Your task to perform on an android device: Go to Android settings Image 0: 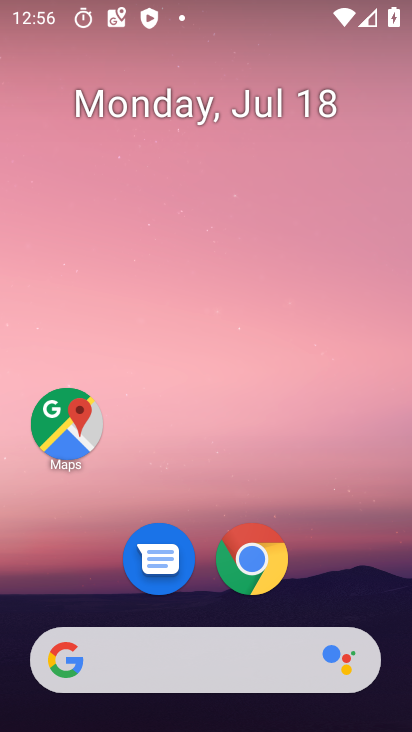
Step 0: drag from (180, 503) to (178, 0)
Your task to perform on an android device: Go to Android settings Image 1: 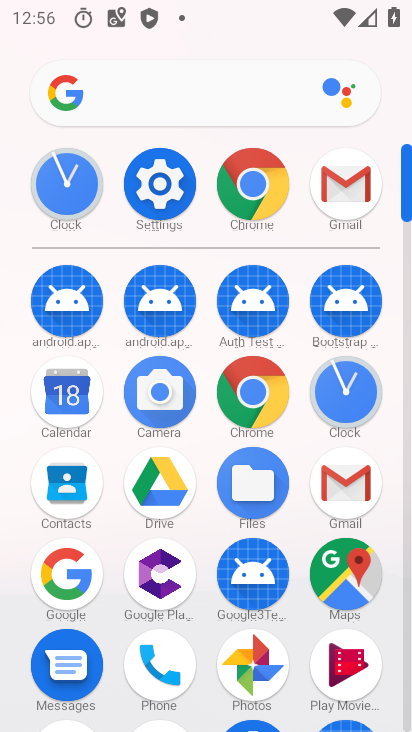
Step 1: click (161, 188)
Your task to perform on an android device: Go to Android settings Image 2: 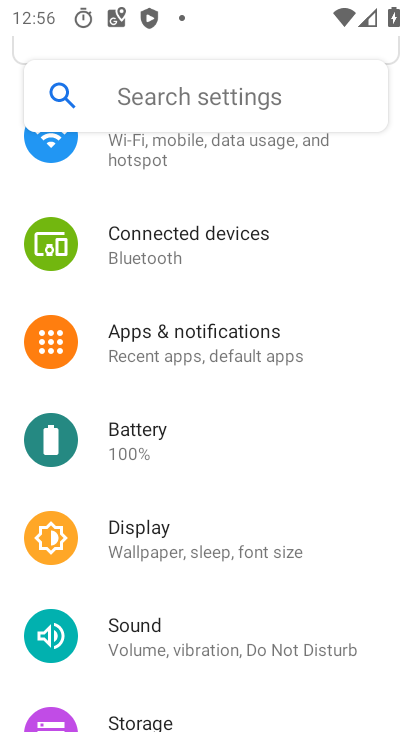
Step 2: drag from (182, 666) to (190, 22)
Your task to perform on an android device: Go to Android settings Image 3: 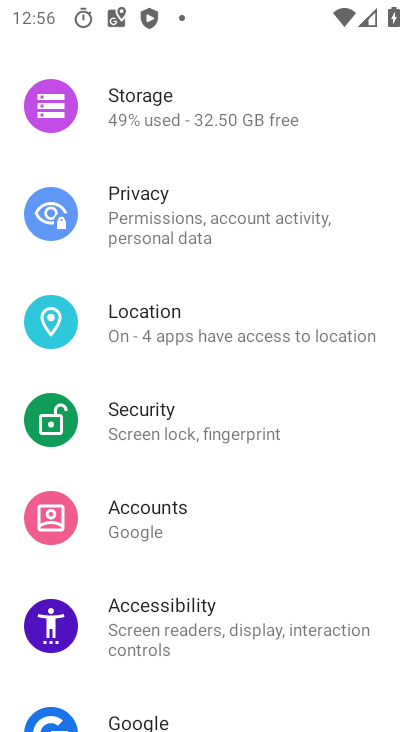
Step 3: drag from (166, 680) to (234, 2)
Your task to perform on an android device: Go to Android settings Image 4: 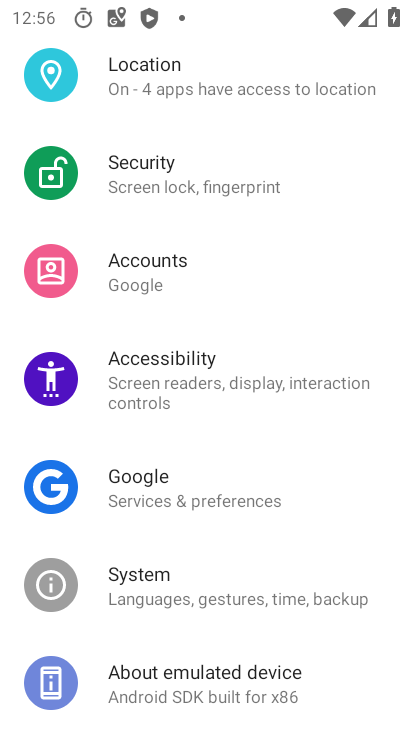
Step 4: click (237, 667)
Your task to perform on an android device: Go to Android settings Image 5: 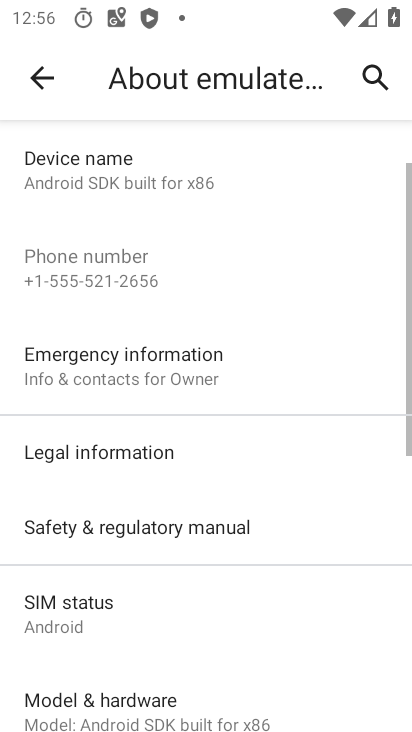
Step 5: drag from (146, 654) to (274, 19)
Your task to perform on an android device: Go to Android settings Image 6: 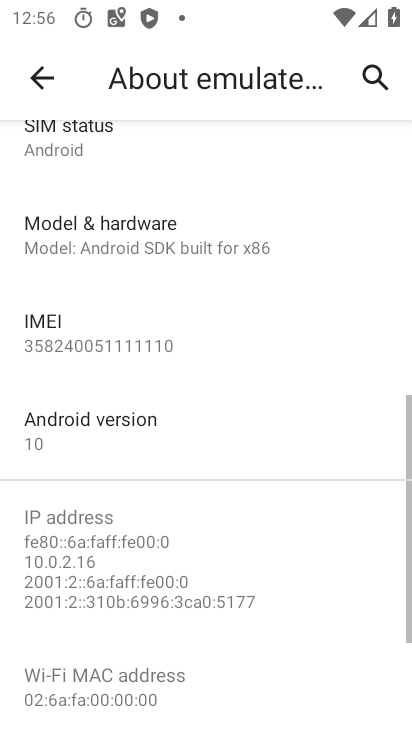
Step 6: click (107, 432)
Your task to perform on an android device: Go to Android settings Image 7: 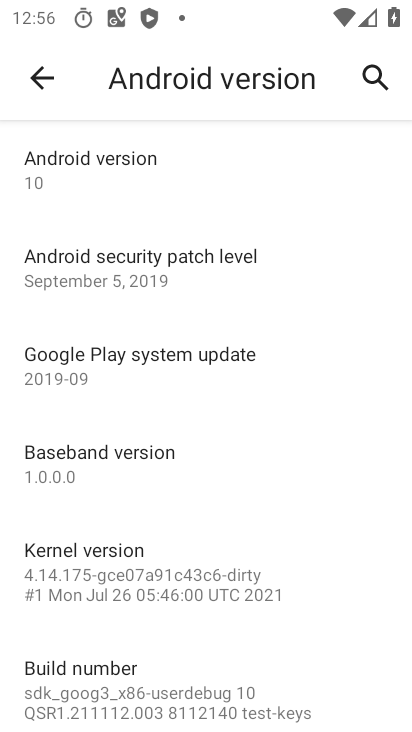
Step 7: task complete